Your task to perform on an android device: check data usage Image 0: 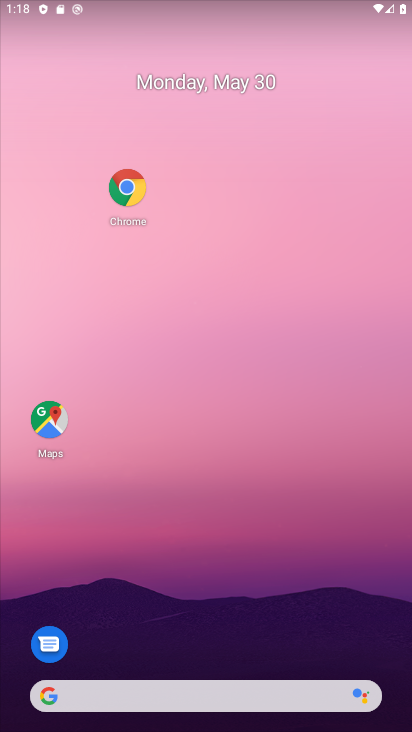
Step 0: drag from (294, 9) to (334, 604)
Your task to perform on an android device: check data usage Image 1: 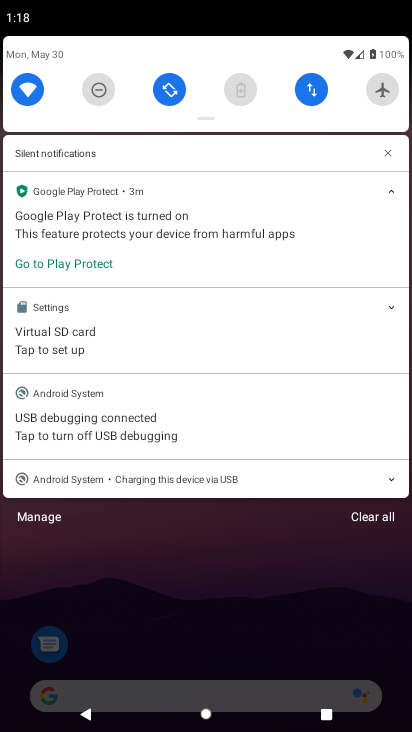
Step 1: click (311, 99)
Your task to perform on an android device: check data usage Image 2: 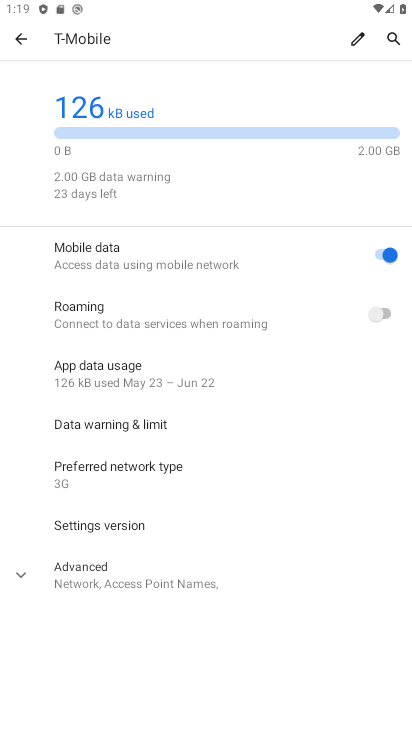
Step 2: task complete